Your task to perform on an android device: add a contact Image 0: 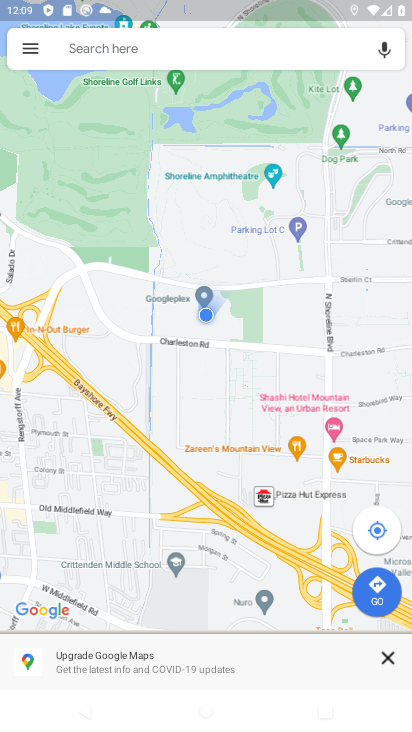
Step 0: press home button
Your task to perform on an android device: add a contact Image 1: 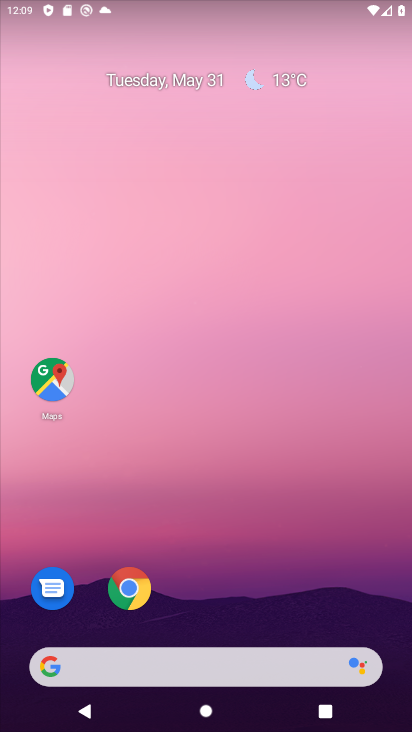
Step 1: drag from (403, 679) to (321, 95)
Your task to perform on an android device: add a contact Image 2: 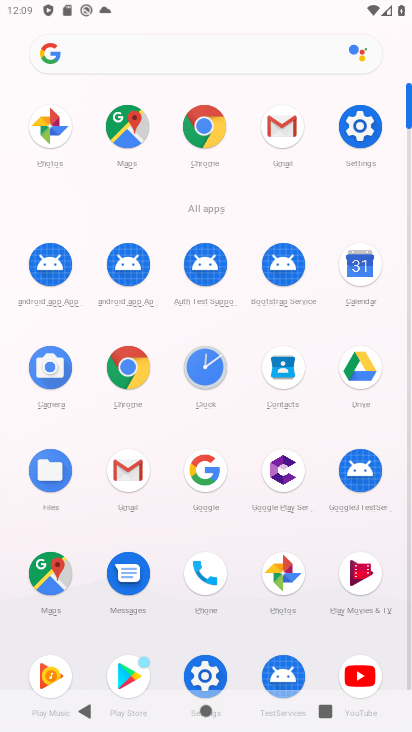
Step 2: click (280, 359)
Your task to perform on an android device: add a contact Image 3: 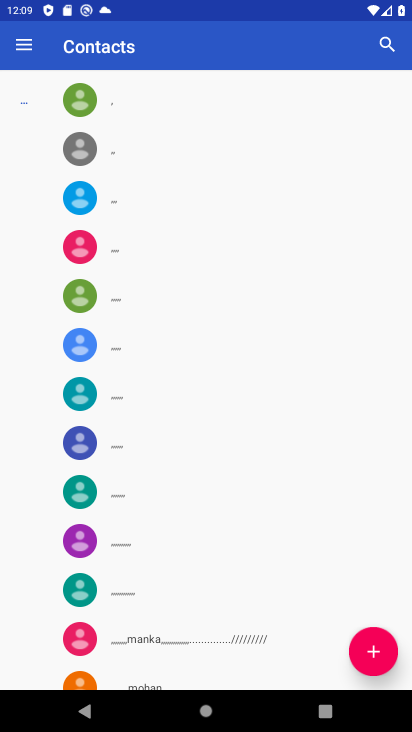
Step 3: click (367, 661)
Your task to perform on an android device: add a contact Image 4: 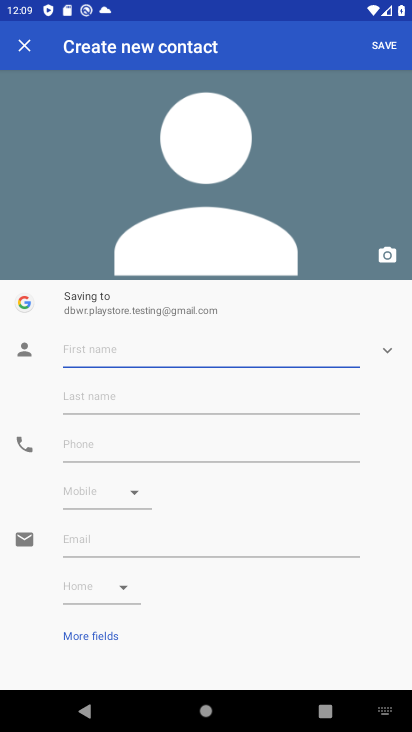
Step 4: type "sdfghcvb"
Your task to perform on an android device: add a contact Image 5: 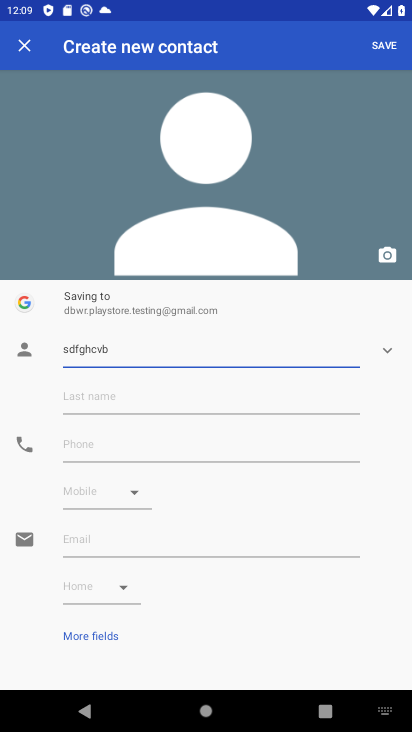
Step 5: click (248, 382)
Your task to perform on an android device: add a contact Image 6: 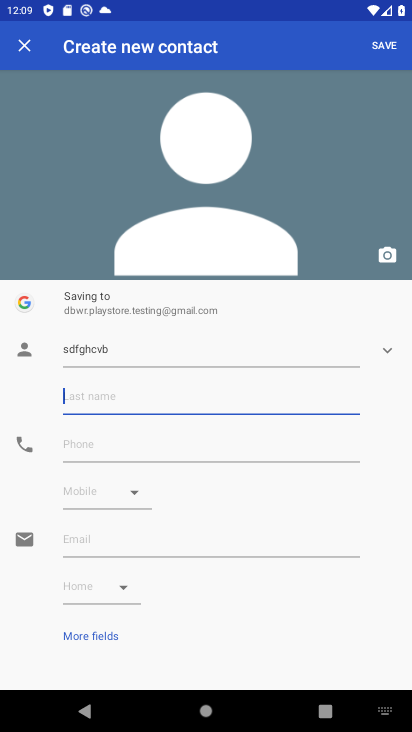
Step 6: type "fgrtghjdfg"
Your task to perform on an android device: add a contact Image 7: 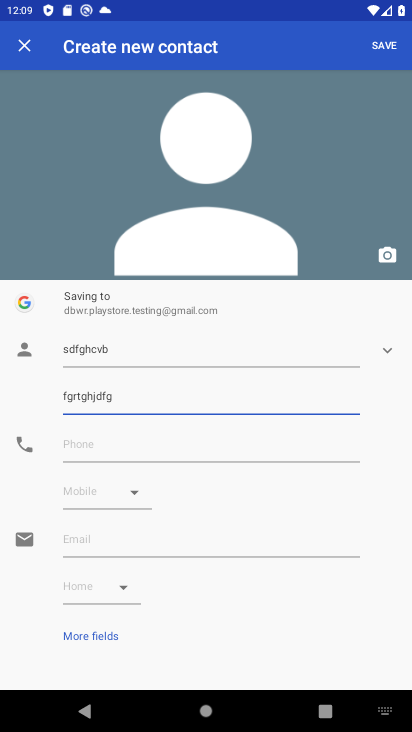
Step 7: click (82, 454)
Your task to perform on an android device: add a contact Image 8: 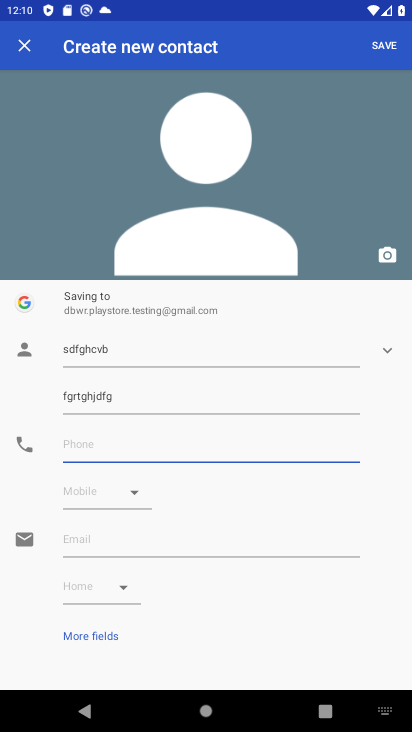
Step 8: type "345678096745"
Your task to perform on an android device: add a contact Image 9: 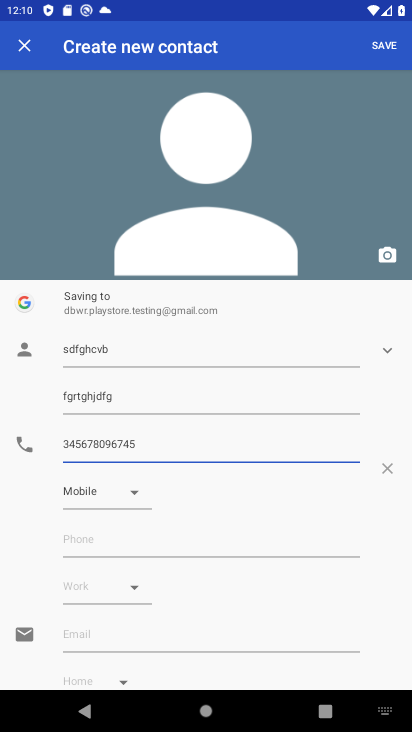
Step 9: task complete